Your task to perform on an android device: open chrome privacy settings Image 0: 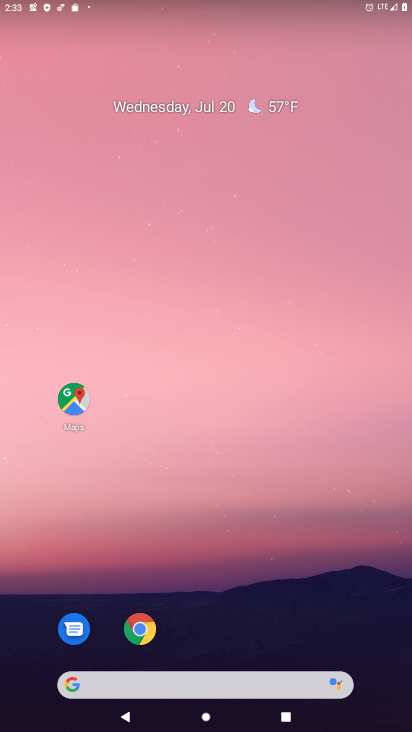
Step 0: click (139, 630)
Your task to perform on an android device: open chrome privacy settings Image 1: 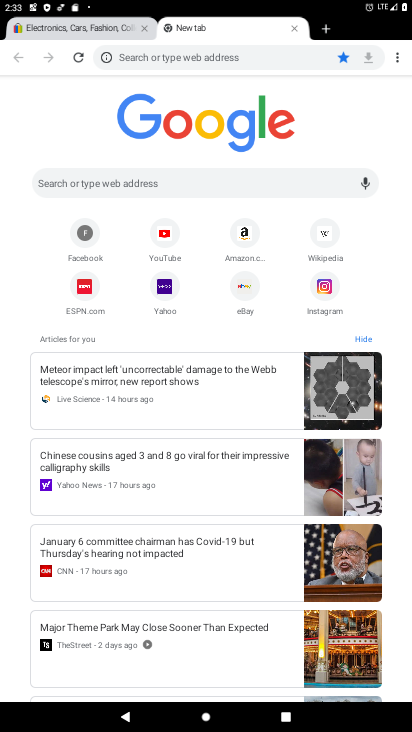
Step 1: click (396, 55)
Your task to perform on an android device: open chrome privacy settings Image 2: 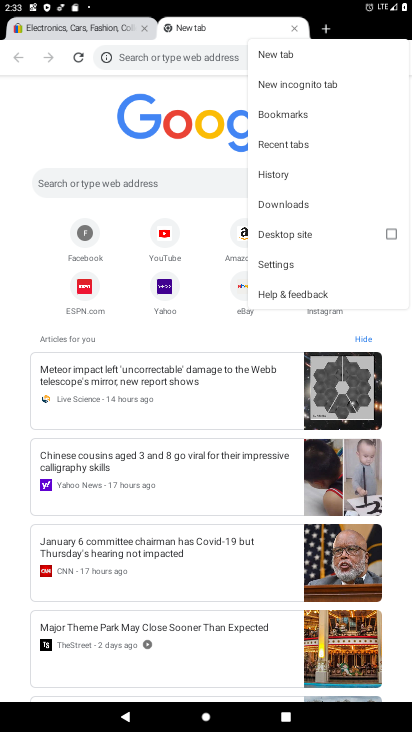
Step 2: click (265, 264)
Your task to perform on an android device: open chrome privacy settings Image 3: 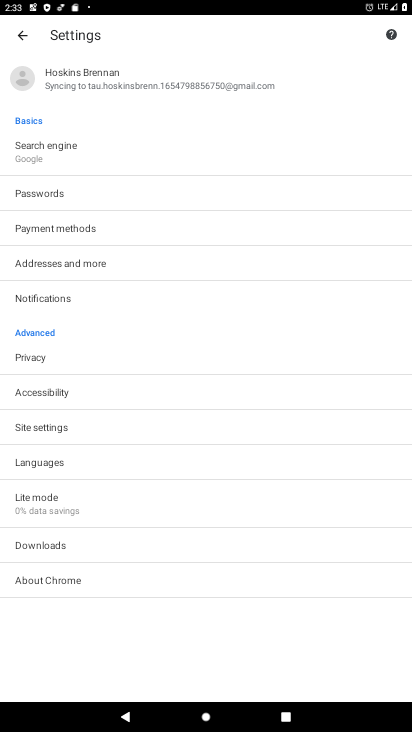
Step 3: click (33, 363)
Your task to perform on an android device: open chrome privacy settings Image 4: 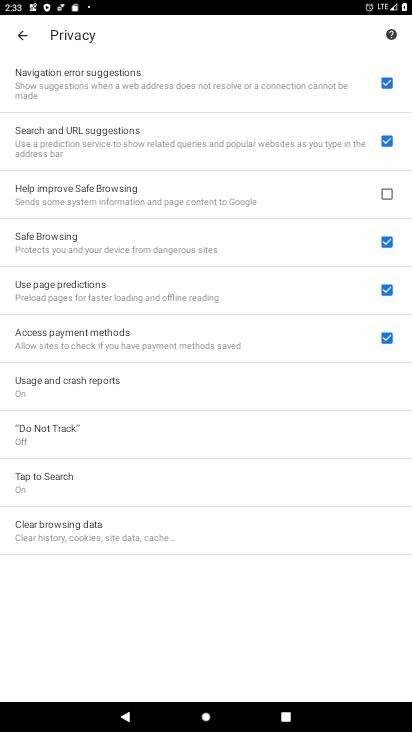
Step 4: task complete